Your task to perform on an android device: toggle data saver in the chrome app Image 0: 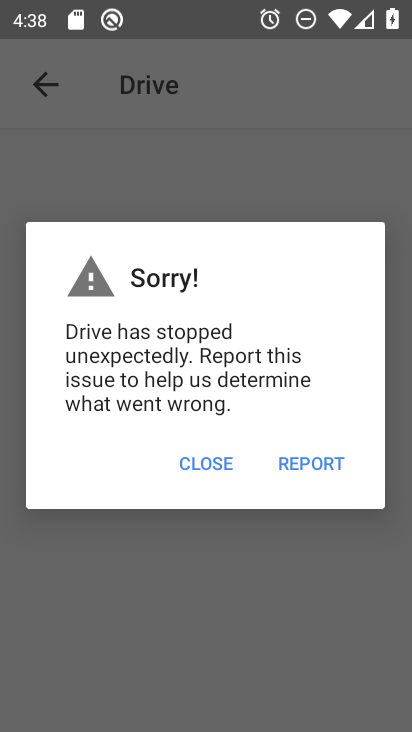
Step 0: press back button
Your task to perform on an android device: toggle data saver in the chrome app Image 1: 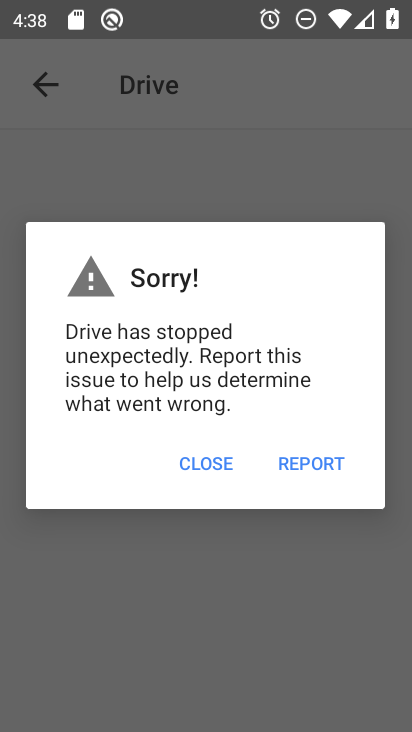
Step 1: press home button
Your task to perform on an android device: toggle data saver in the chrome app Image 2: 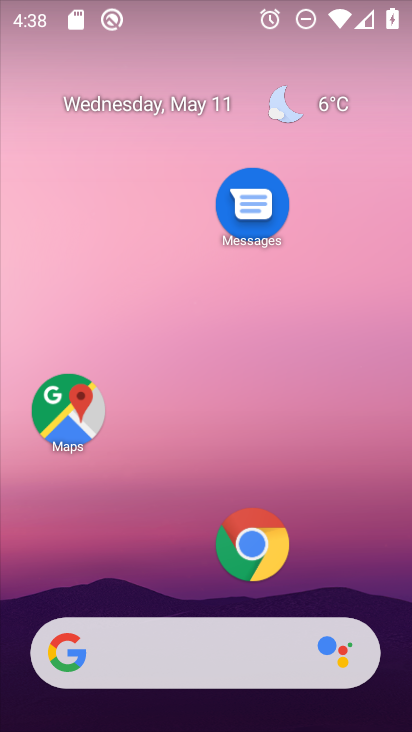
Step 2: click (246, 533)
Your task to perform on an android device: toggle data saver in the chrome app Image 3: 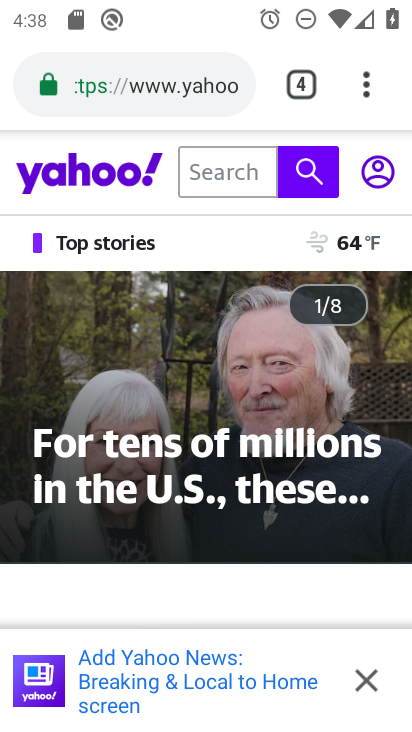
Step 3: drag from (368, 85) to (113, 599)
Your task to perform on an android device: toggle data saver in the chrome app Image 4: 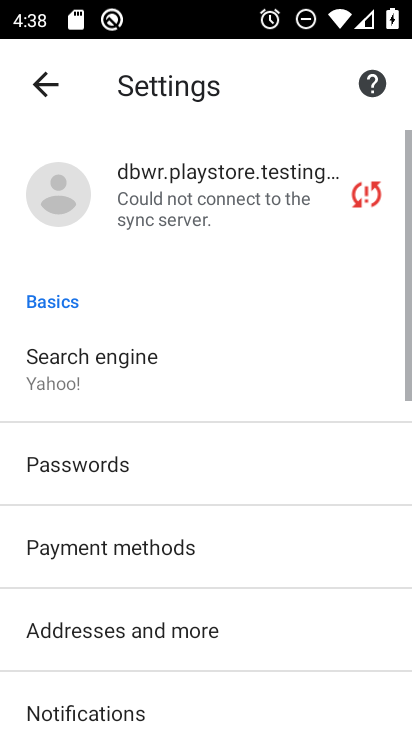
Step 4: drag from (101, 715) to (265, 151)
Your task to perform on an android device: toggle data saver in the chrome app Image 5: 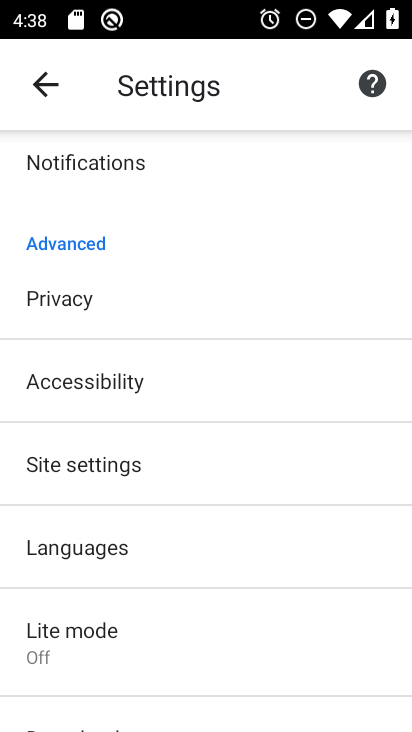
Step 5: click (87, 471)
Your task to perform on an android device: toggle data saver in the chrome app Image 6: 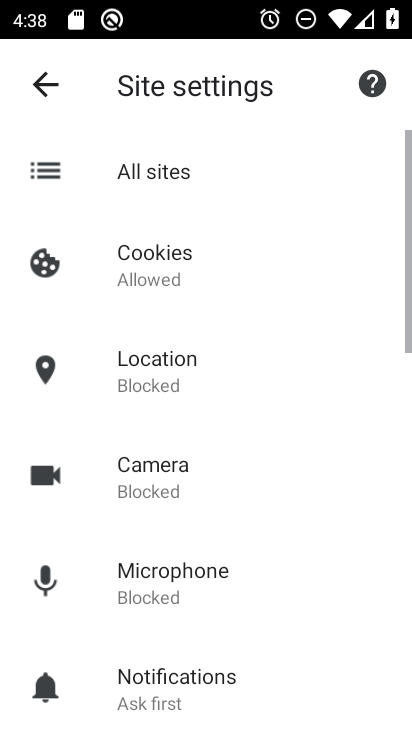
Step 6: click (41, 81)
Your task to perform on an android device: toggle data saver in the chrome app Image 7: 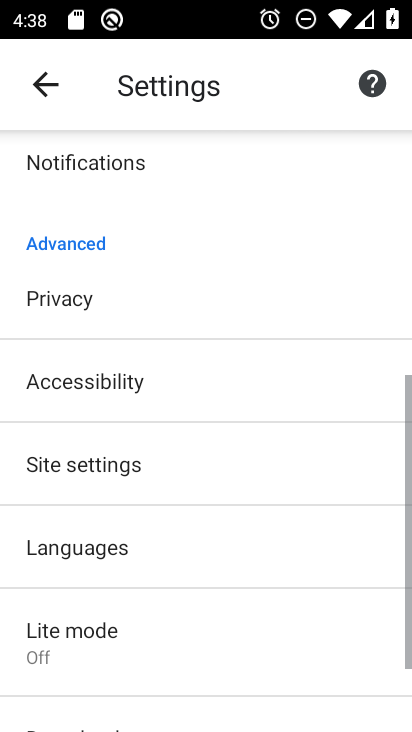
Step 7: click (90, 631)
Your task to perform on an android device: toggle data saver in the chrome app Image 8: 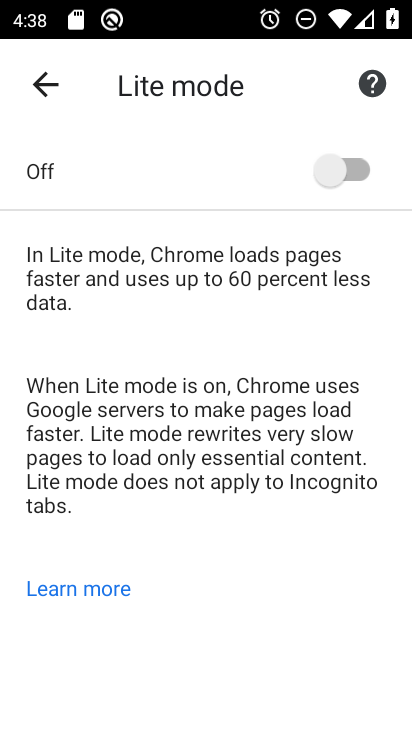
Step 8: click (324, 166)
Your task to perform on an android device: toggle data saver in the chrome app Image 9: 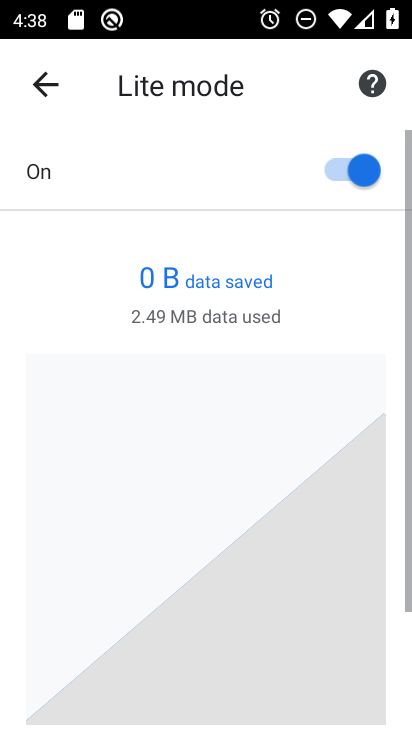
Step 9: task complete